Your task to perform on an android device: Go to sound settings Image 0: 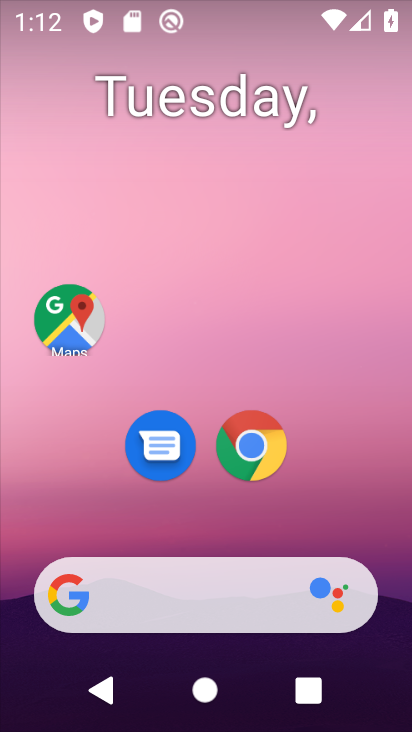
Step 0: drag from (210, 530) to (195, 101)
Your task to perform on an android device: Go to sound settings Image 1: 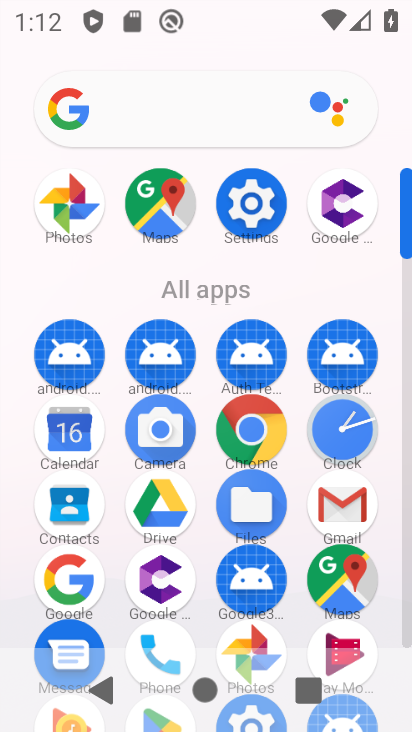
Step 1: click (248, 197)
Your task to perform on an android device: Go to sound settings Image 2: 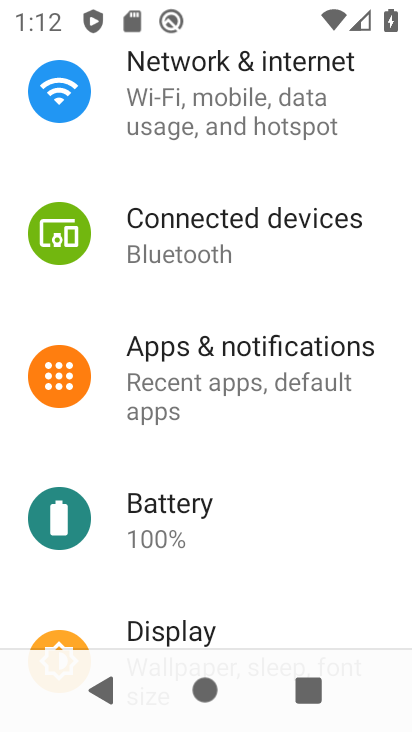
Step 2: drag from (159, 582) to (151, 124)
Your task to perform on an android device: Go to sound settings Image 3: 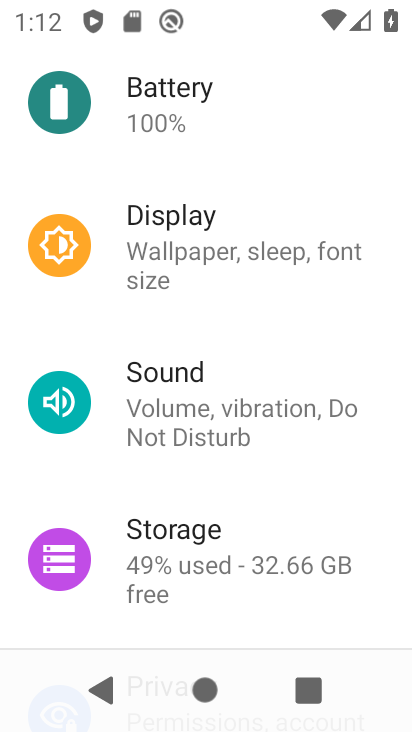
Step 3: click (106, 381)
Your task to perform on an android device: Go to sound settings Image 4: 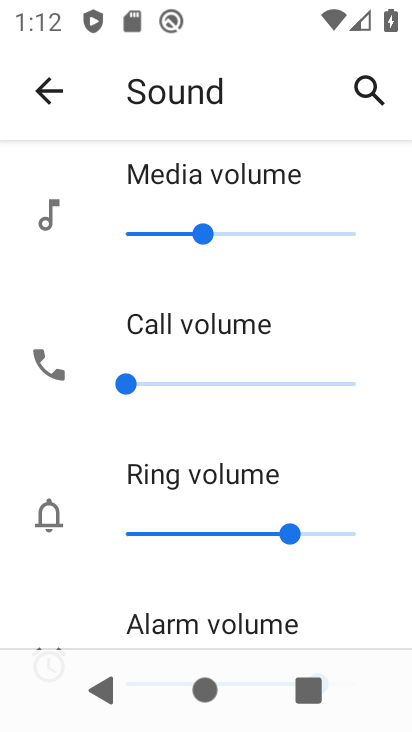
Step 4: drag from (95, 599) to (128, 136)
Your task to perform on an android device: Go to sound settings Image 5: 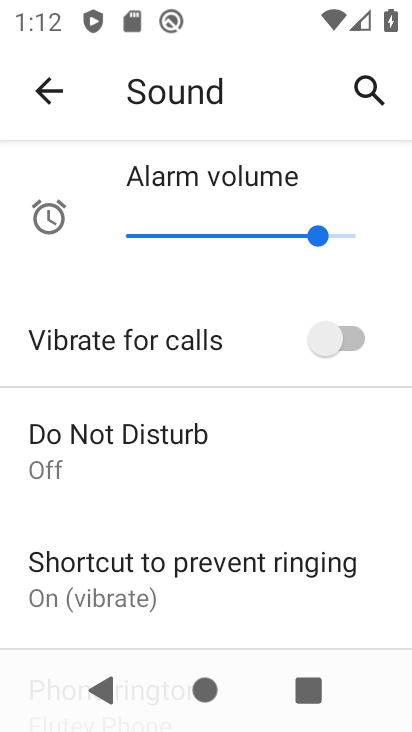
Step 5: drag from (218, 601) to (229, 137)
Your task to perform on an android device: Go to sound settings Image 6: 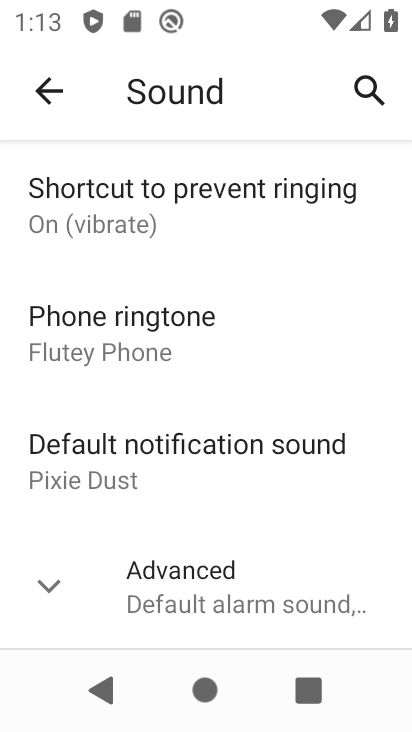
Step 6: click (46, 578)
Your task to perform on an android device: Go to sound settings Image 7: 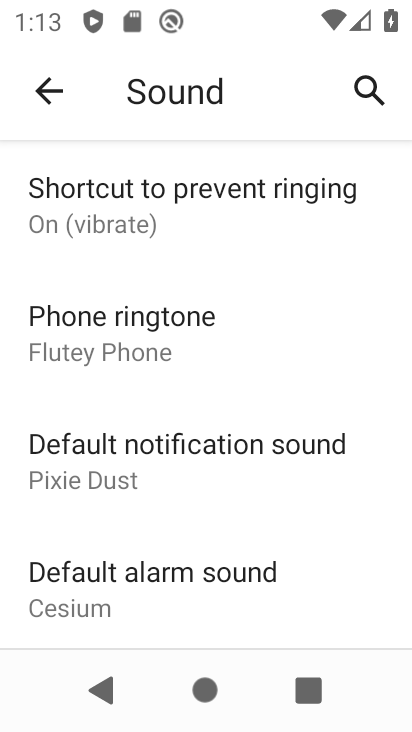
Step 7: task complete